Your task to perform on an android device: star an email in the gmail app Image 0: 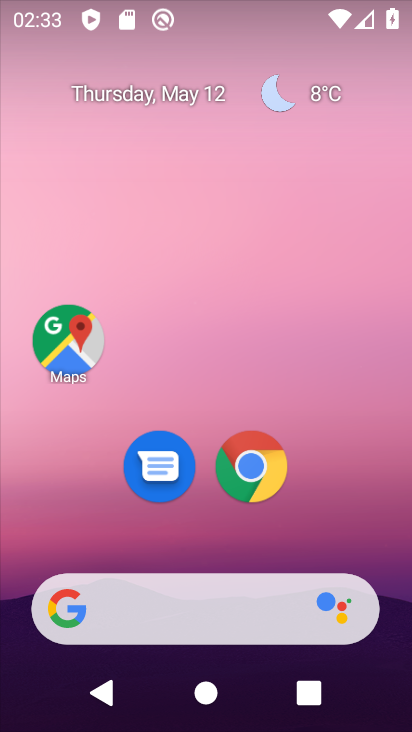
Step 0: drag from (350, 537) to (352, 152)
Your task to perform on an android device: star an email in the gmail app Image 1: 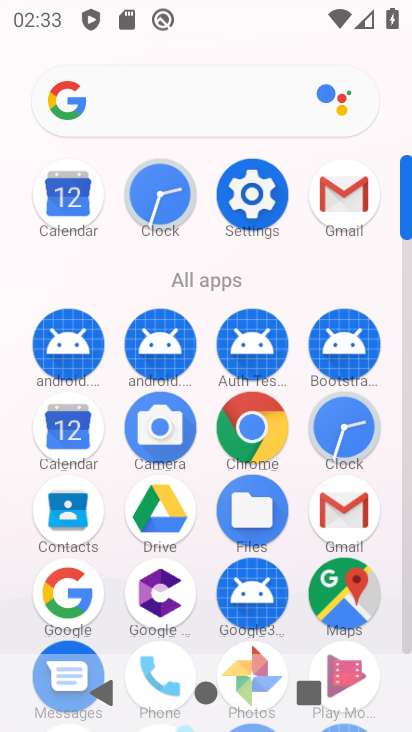
Step 1: click (357, 182)
Your task to perform on an android device: star an email in the gmail app Image 2: 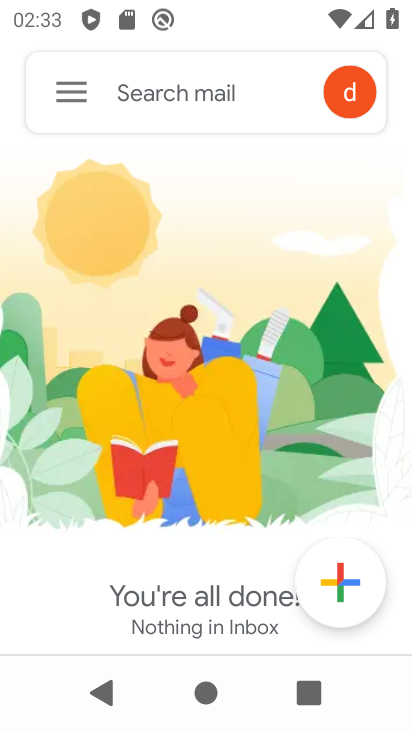
Step 2: click (78, 101)
Your task to perform on an android device: star an email in the gmail app Image 3: 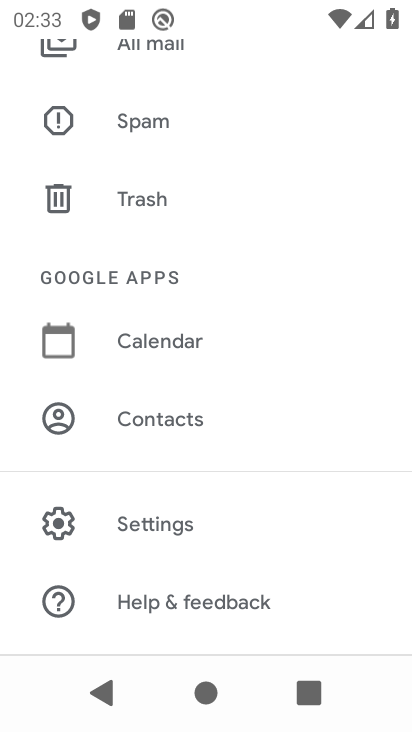
Step 3: drag from (211, 239) to (221, 411)
Your task to perform on an android device: star an email in the gmail app Image 4: 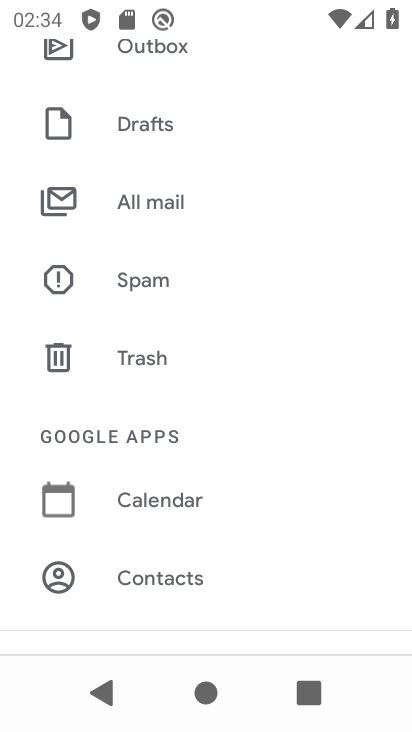
Step 4: click (183, 198)
Your task to perform on an android device: star an email in the gmail app Image 5: 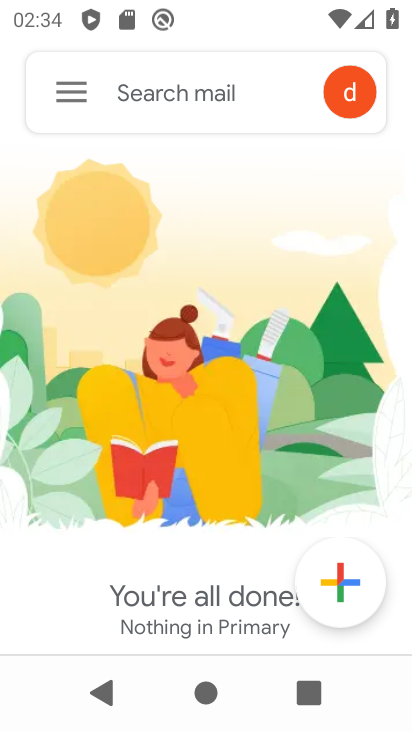
Step 5: task complete